Your task to perform on an android device: open app "Adobe Acrobat Reader: Edit PDF" Image 0: 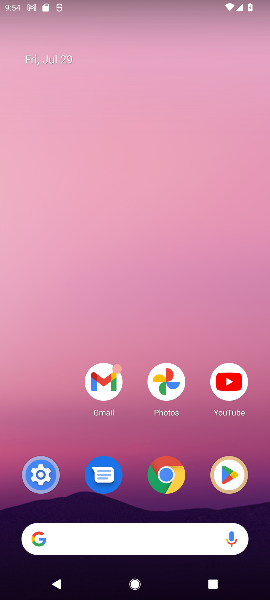
Step 0: drag from (200, 442) to (206, 1)
Your task to perform on an android device: open app "Adobe Acrobat Reader: Edit PDF" Image 1: 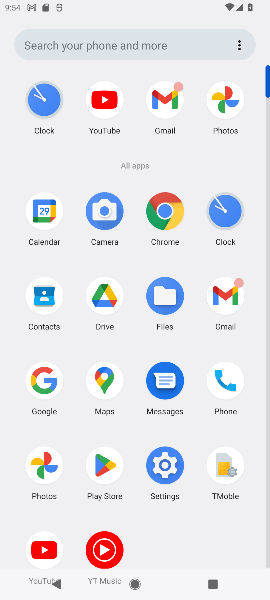
Step 1: click (105, 472)
Your task to perform on an android device: open app "Adobe Acrobat Reader: Edit PDF" Image 2: 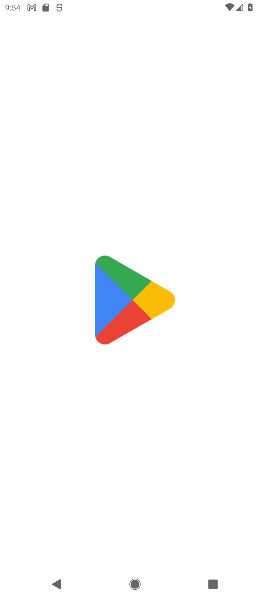
Step 2: task complete